Your task to perform on an android device: Search for vegetarian restaurants on Maps Image 0: 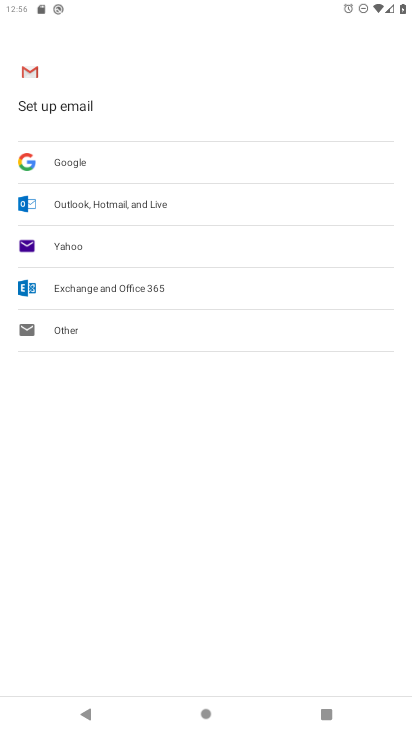
Step 0: press home button
Your task to perform on an android device: Search for vegetarian restaurants on Maps Image 1: 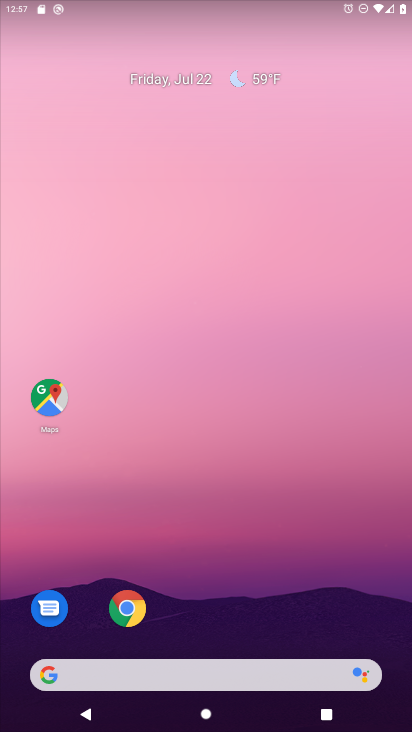
Step 1: drag from (325, 586) to (143, 17)
Your task to perform on an android device: Search for vegetarian restaurants on Maps Image 2: 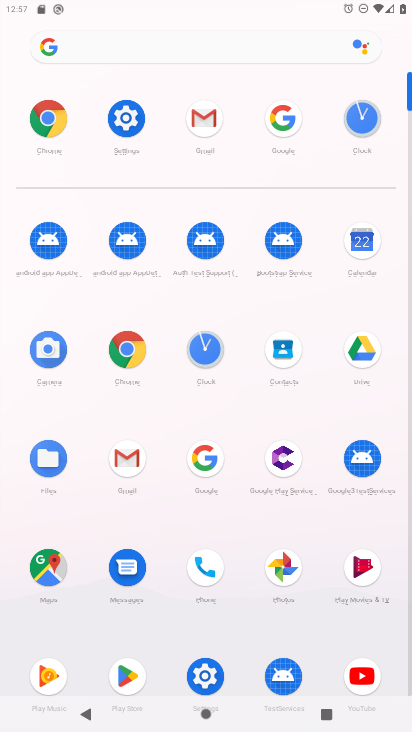
Step 2: click (57, 565)
Your task to perform on an android device: Search for vegetarian restaurants on Maps Image 3: 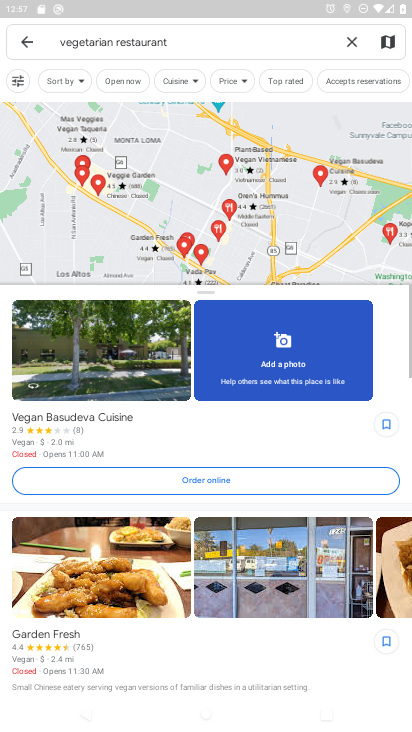
Step 3: task complete